Your task to perform on an android device: move an email to a new category in the gmail app Image 0: 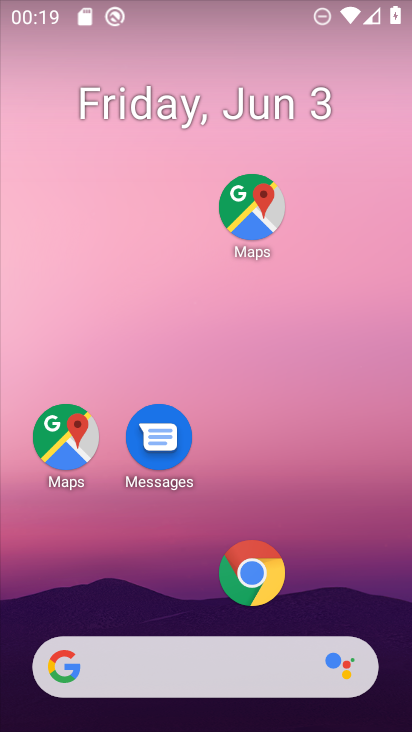
Step 0: drag from (327, 567) to (323, 193)
Your task to perform on an android device: move an email to a new category in the gmail app Image 1: 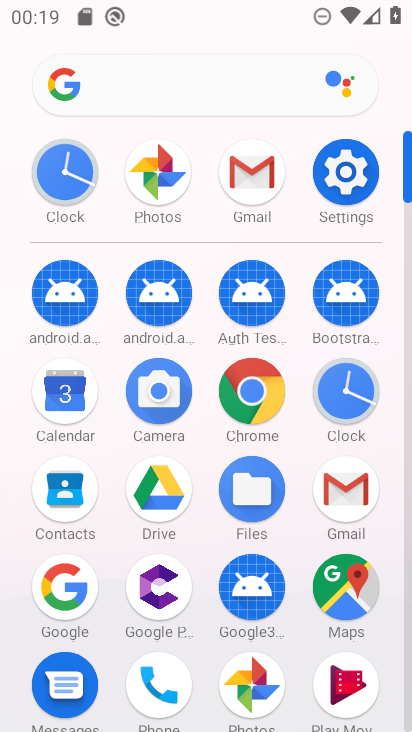
Step 1: click (339, 497)
Your task to perform on an android device: move an email to a new category in the gmail app Image 2: 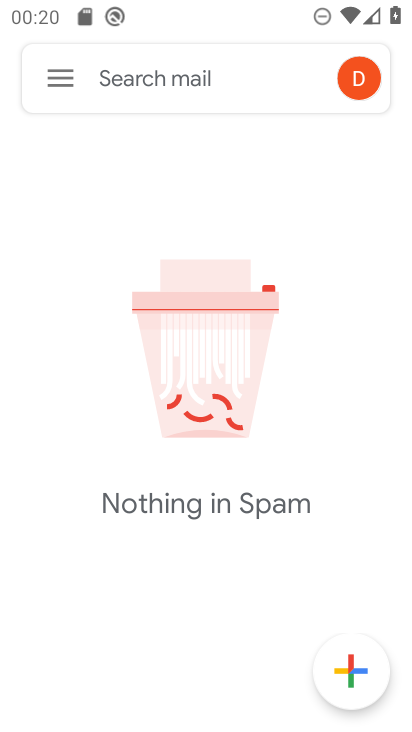
Step 2: click (66, 69)
Your task to perform on an android device: move an email to a new category in the gmail app Image 3: 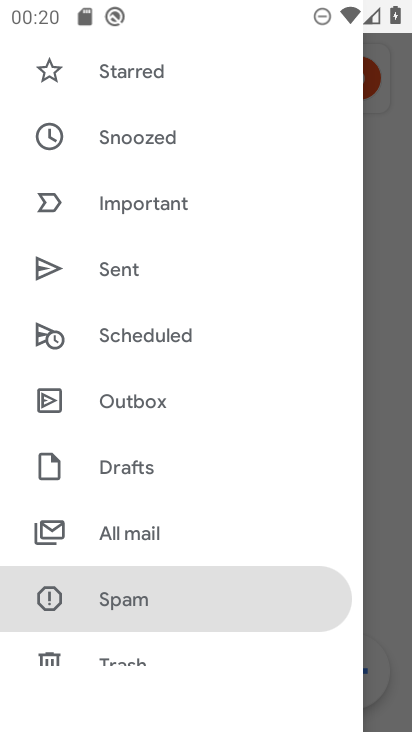
Step 3: click (136, 530)
Your task to perform on an android device: move an email to a new category in the gmail app Image 4: 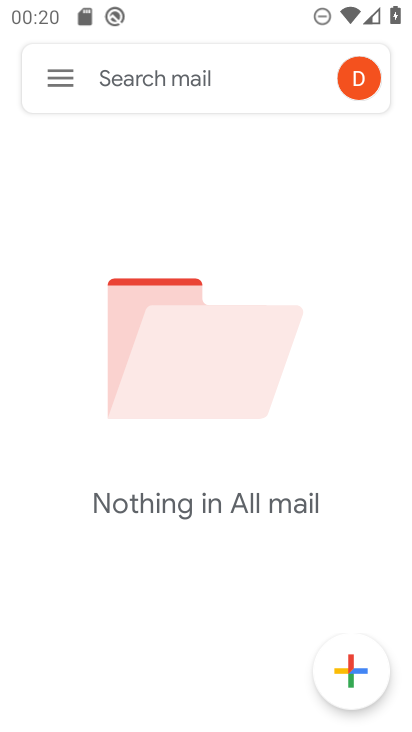
Step 4: task complete